Your task to perform on an android device: open app "Upside-Cash back on gas & food" (install if not already installed), go to login, and select forgot password Image 0: 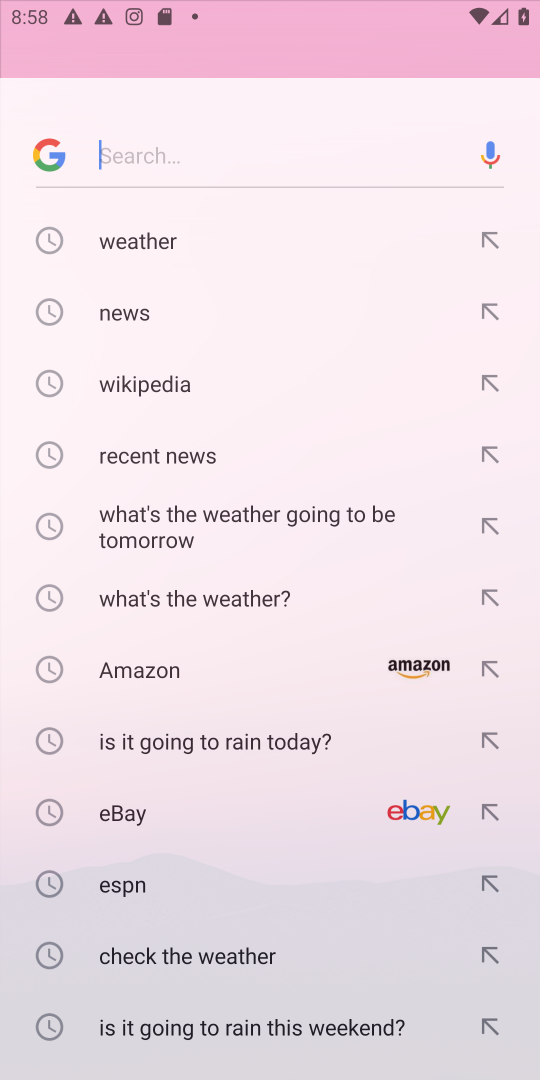
Step 0: press home button
Your task to perform on an android device: open app "Upside-Cash back on gas & food" (install if not already installed), go to login, and select forgot password Image 1: 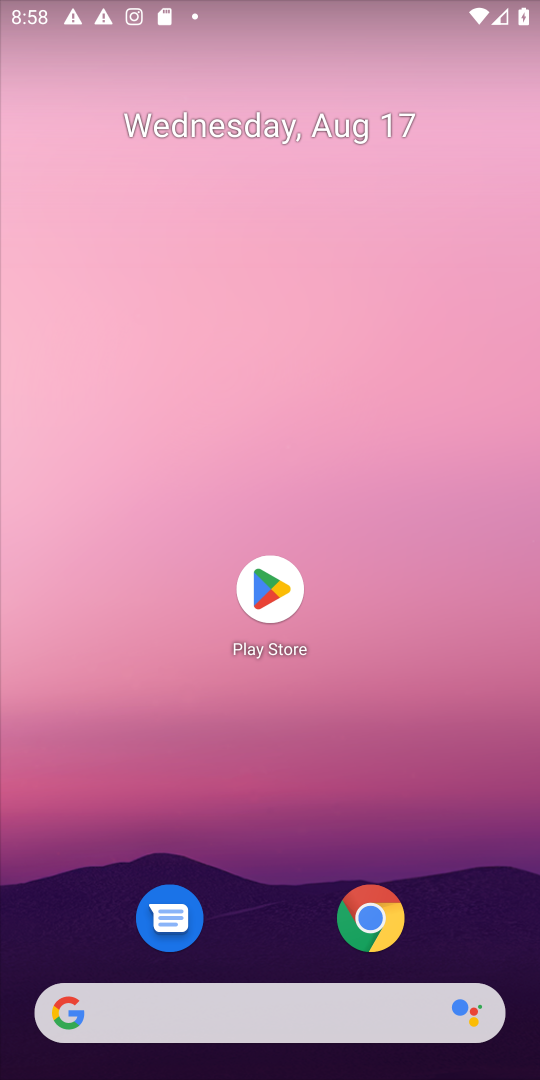
Step 1: click (271, 586)
Your task to perform on an android device: open app "Upside-Cash back on gas & food" (install if not already installed), go to login, and select forgot password Image 2: 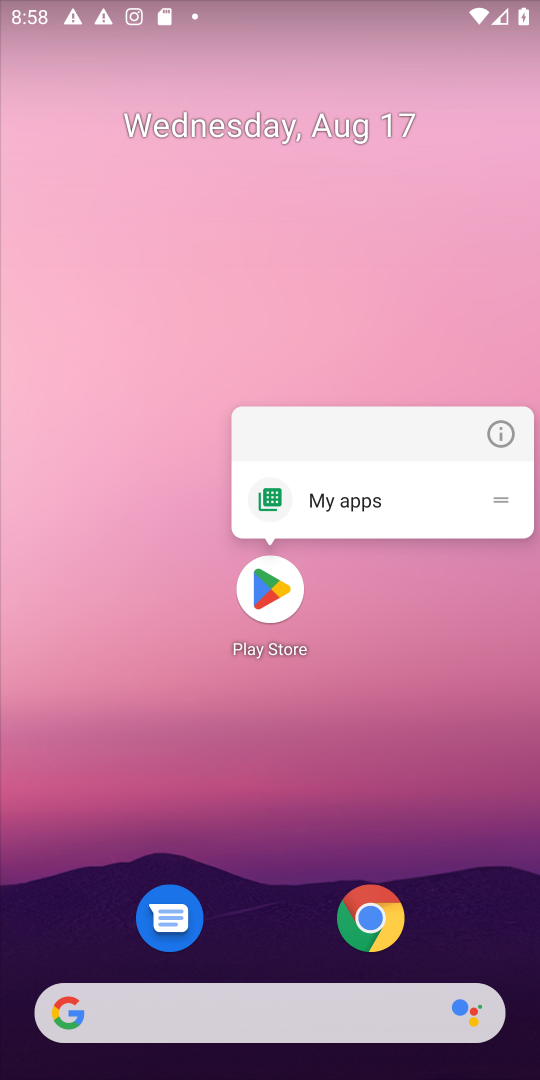
Step 2: click (271, 585)
Your task to perform on an android device: open app "Upside-Cash back on gas & food" (install if not already installed), go to login, and select forgot password Image 3: 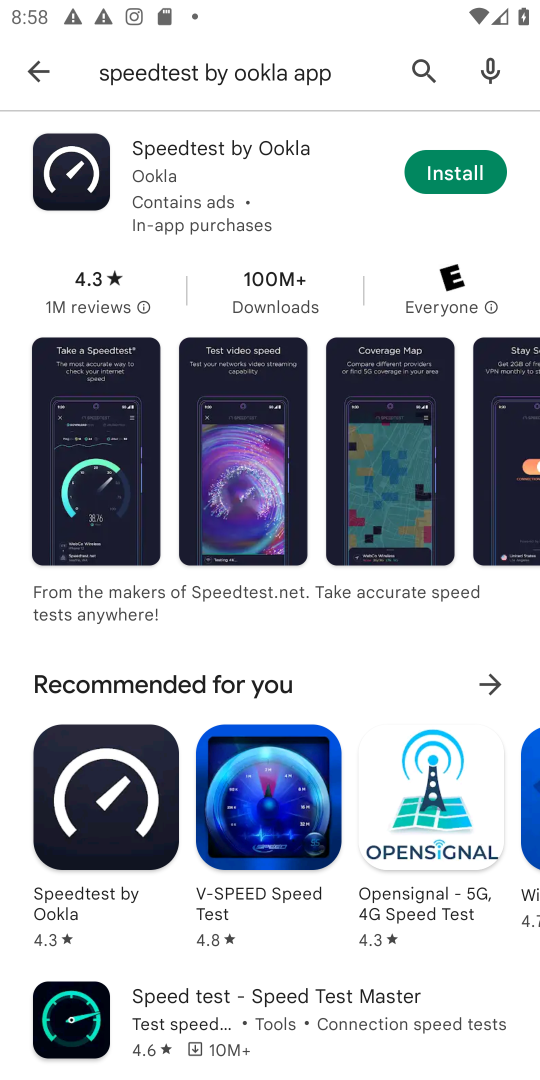
Step 3: click (408, 64)
Your task to perform on an android device: open app "Upside-Cash back on gas & food" (install if not already installed), go to login, and select forgot password Image 4: 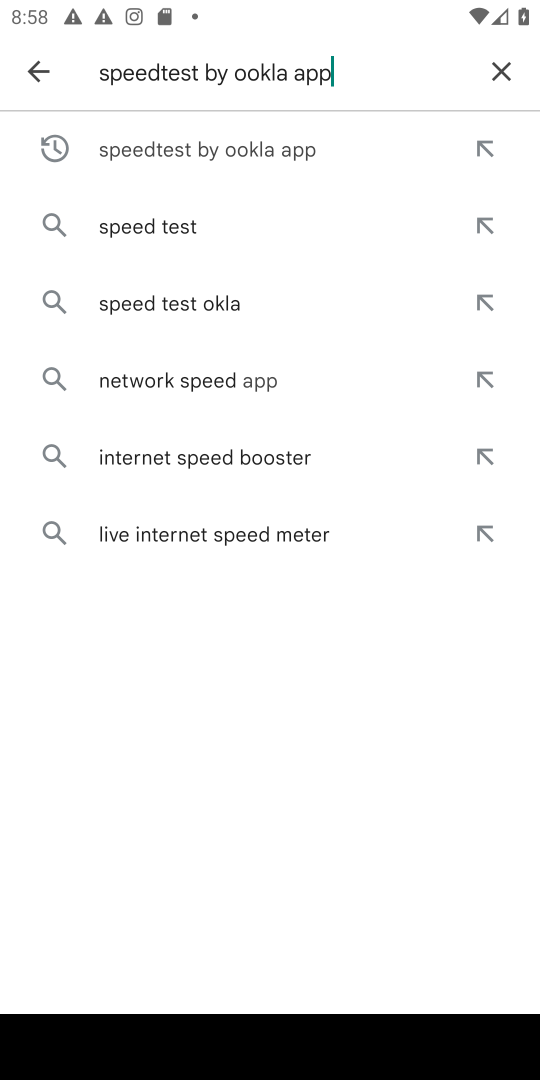
Step 4: click (499, 69)
Your task to perform on an android device: open app "Upside-Cash back on gas & food" (install if not already installed), go to login, and select forgot password Image 5: 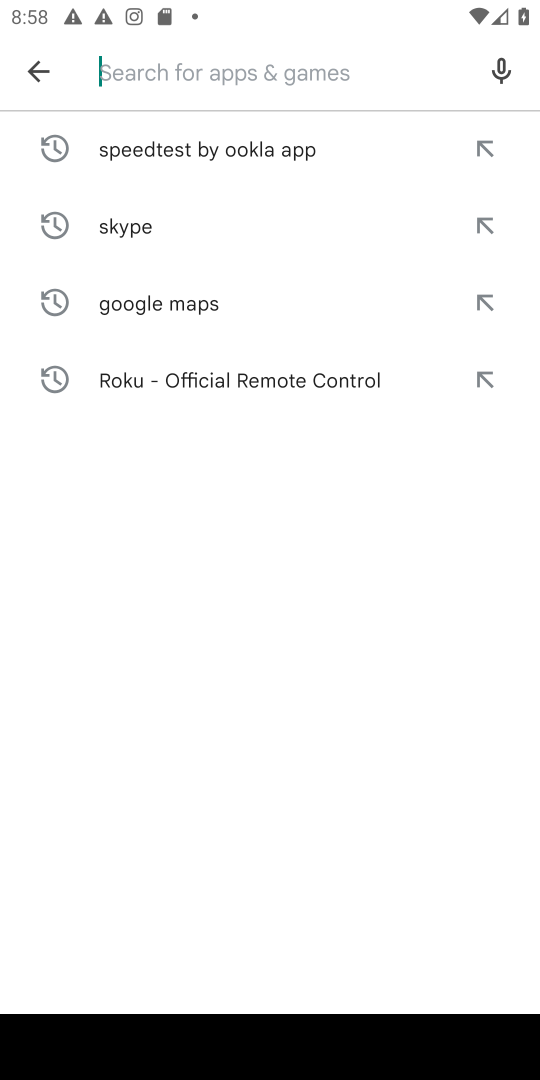
Step 5: type "Upside-Cash back on gas & food"
Your task to perform on an android device: open app "Upside-Cash back on gas & food" (install if not already installed), go to login, and select forgot password Image 6: 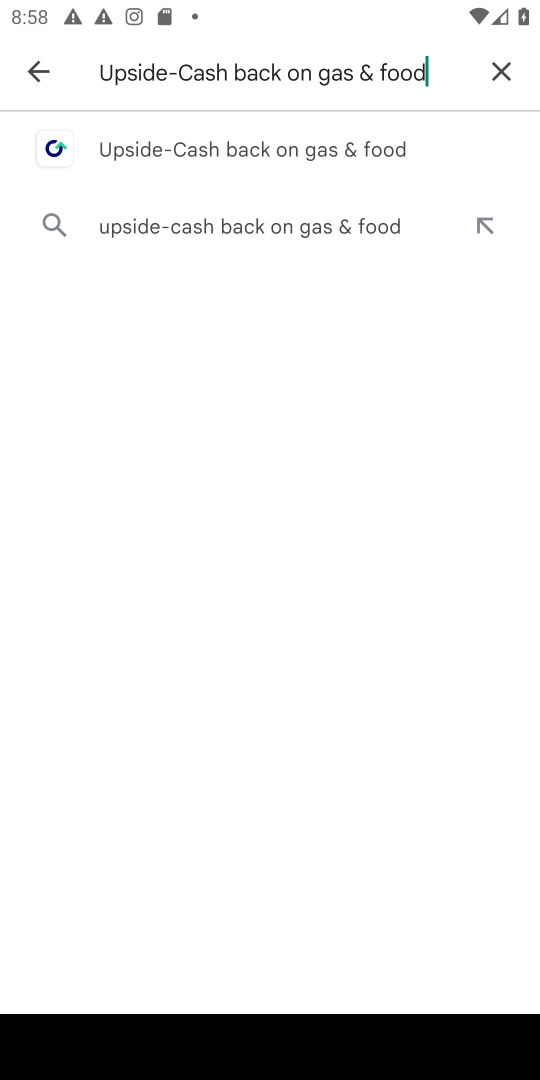
Step 6: click (266, 154)
Your task to perform on an android device: open app "Upside-Cash back on gas & food" (install if not already installed), go to login, and select forgot password Image 7: 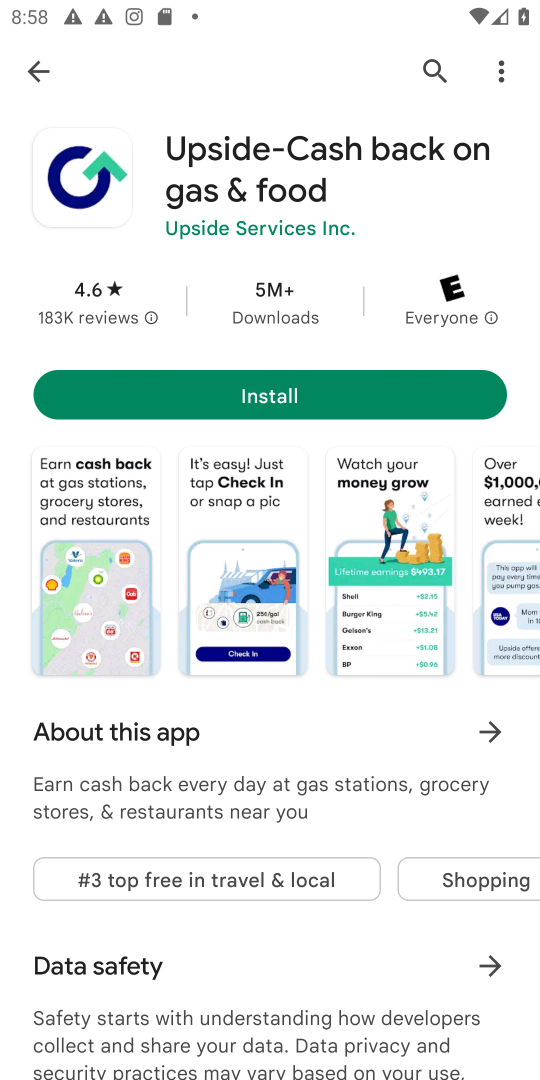
Step 7: click (361, 386)
Your task to perform on an android device: open app "Upside-Cash back on gas & food" (install if not already installed), go to login, and select forgot password Image 8: 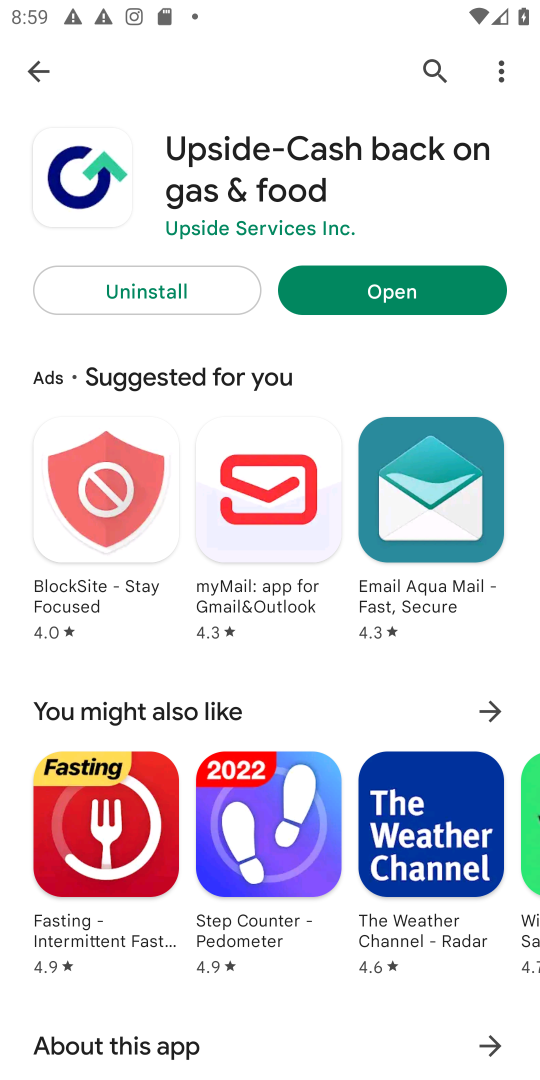
Step 8: click (387, 294)
Your task to perform on an android device: open app "Upside-Cash back on gas & food" (install if not already installed), go to login, and select forgot password Image 9: 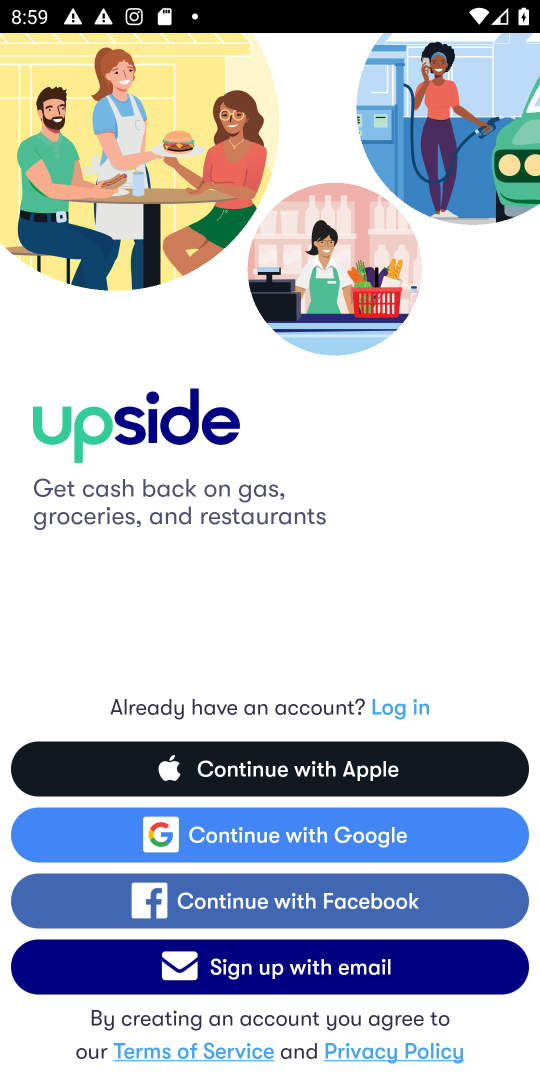
Step 9: click (348, 958)
Your task to perform on an android device: open app "Upside-Cash back on gas & food" (install if not already installed), go to login, and select forgot password Image 10: 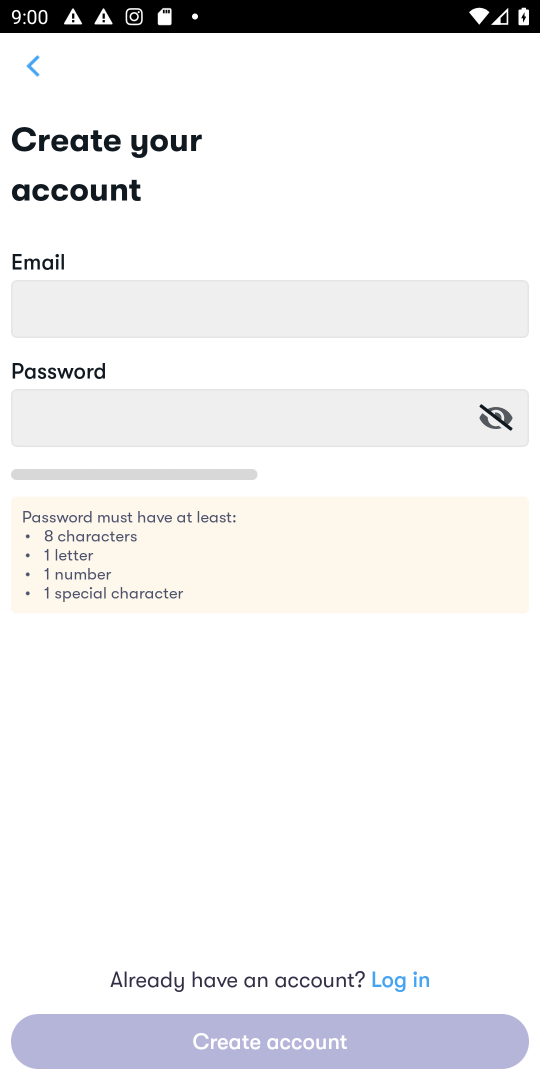
Step 10: click (411, 982)
Your task to perform on an android device: open app "Upside-Cash back on gas & food" (install if not already installed), go to login, and select forgot password Image 11: 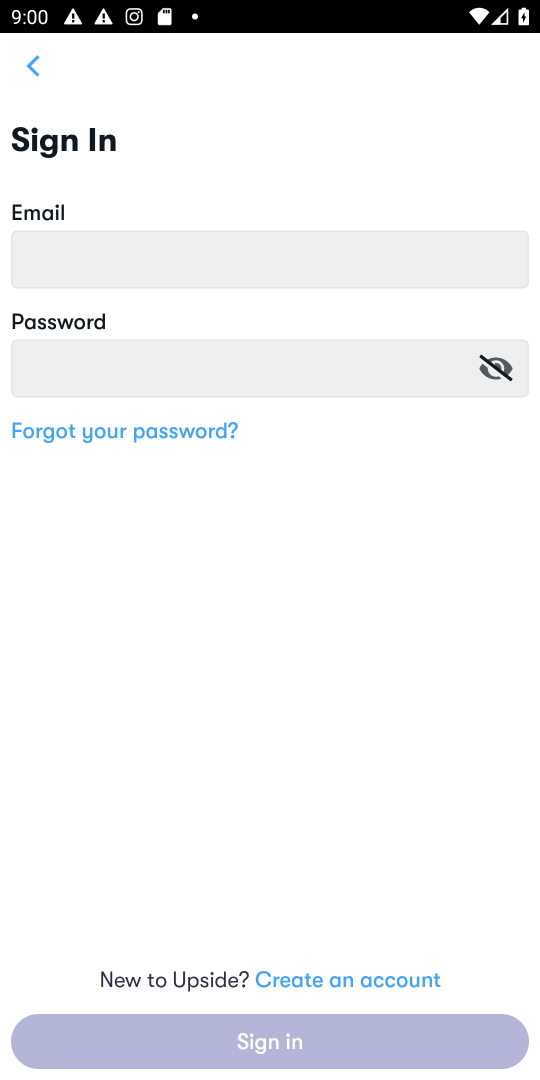
Step 11: click (122, 423)
Your task to perform on an android device: open app "Upside-Cash back on gas & food" (install if not already installed), go to login, and select forgot password Image 12: 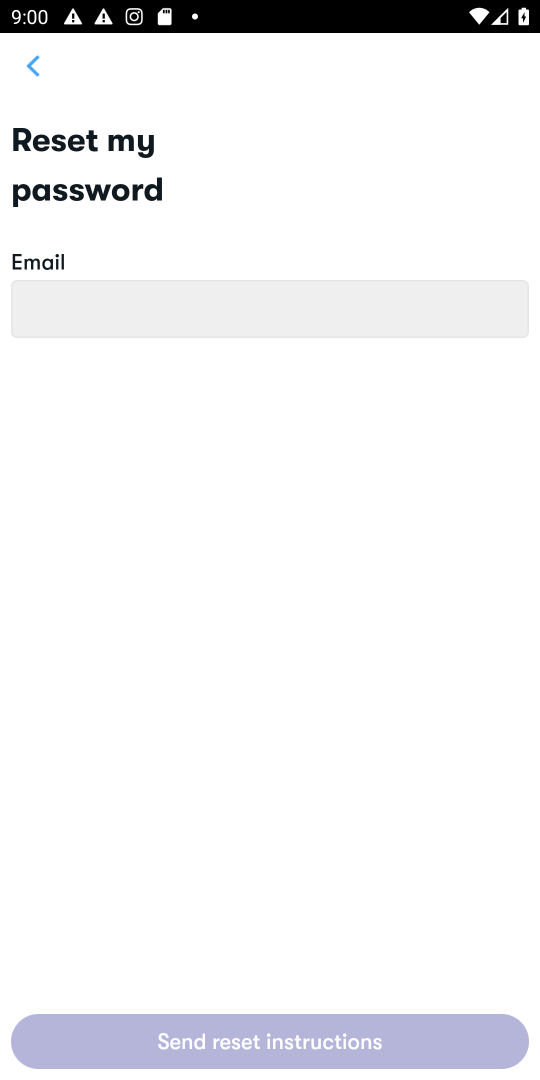
Step 12: task complete